Your task to perform on an android device: Go to Reddit.com Image 0: 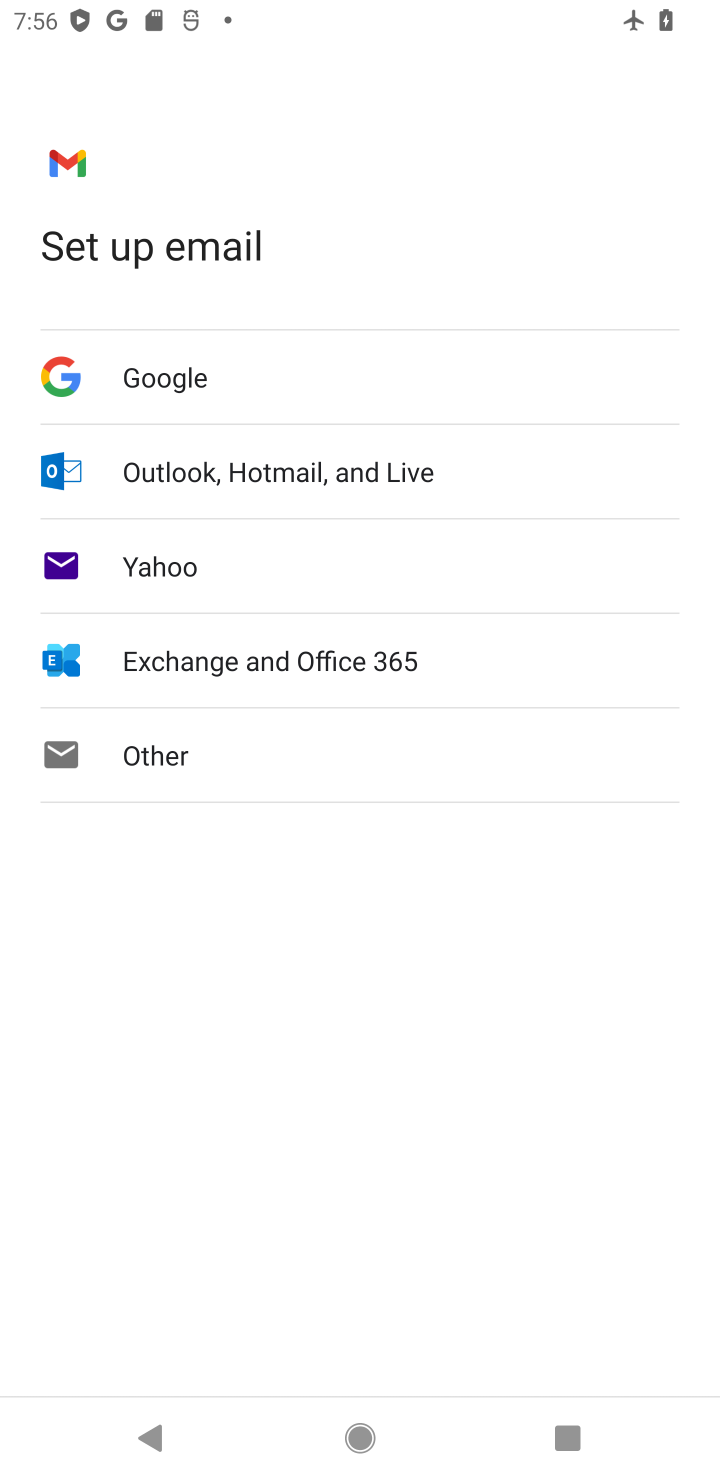
Step 0: press home button
Your task to perform on an android device: Go to Reddit.com Image 1: 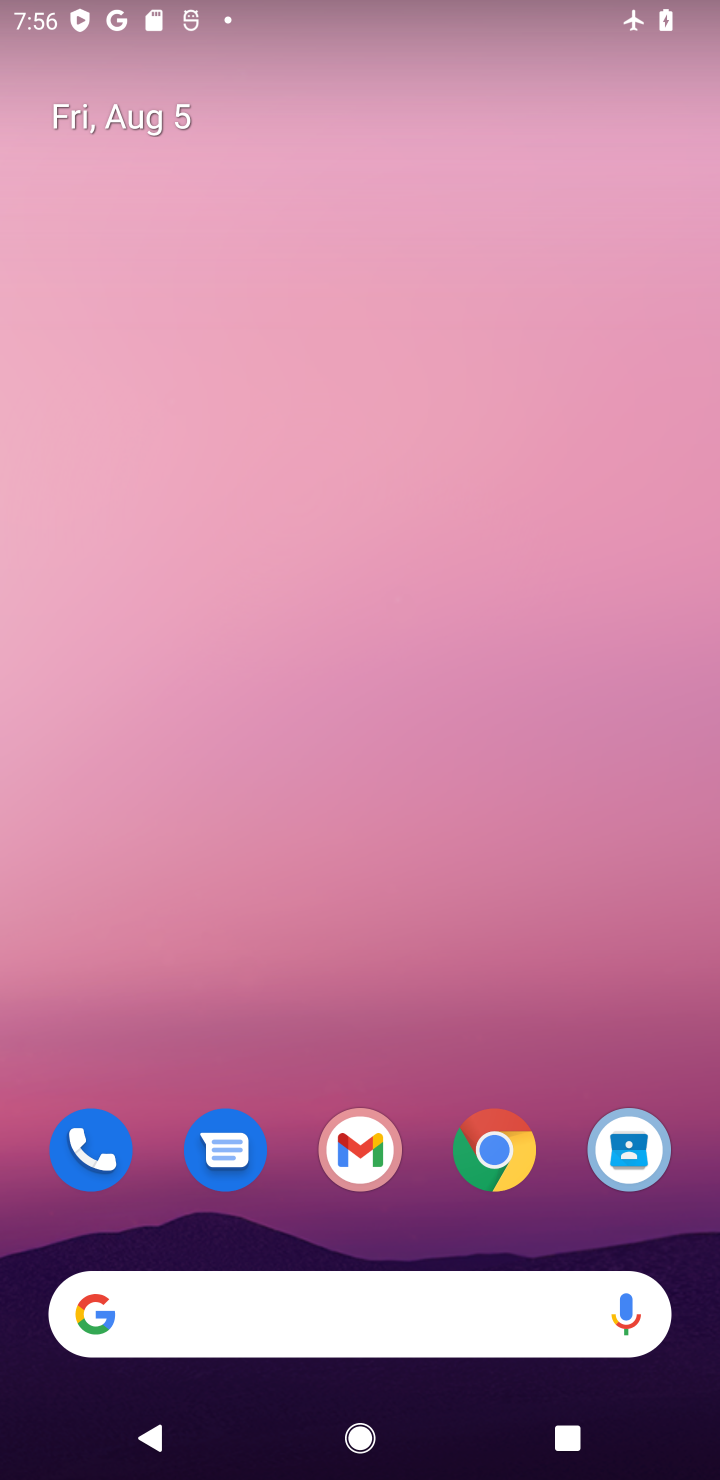
Step 1: drag from (450, 878) to (514, 554)
Your task to perform on an android device: Go to Reddit.com Image 2: 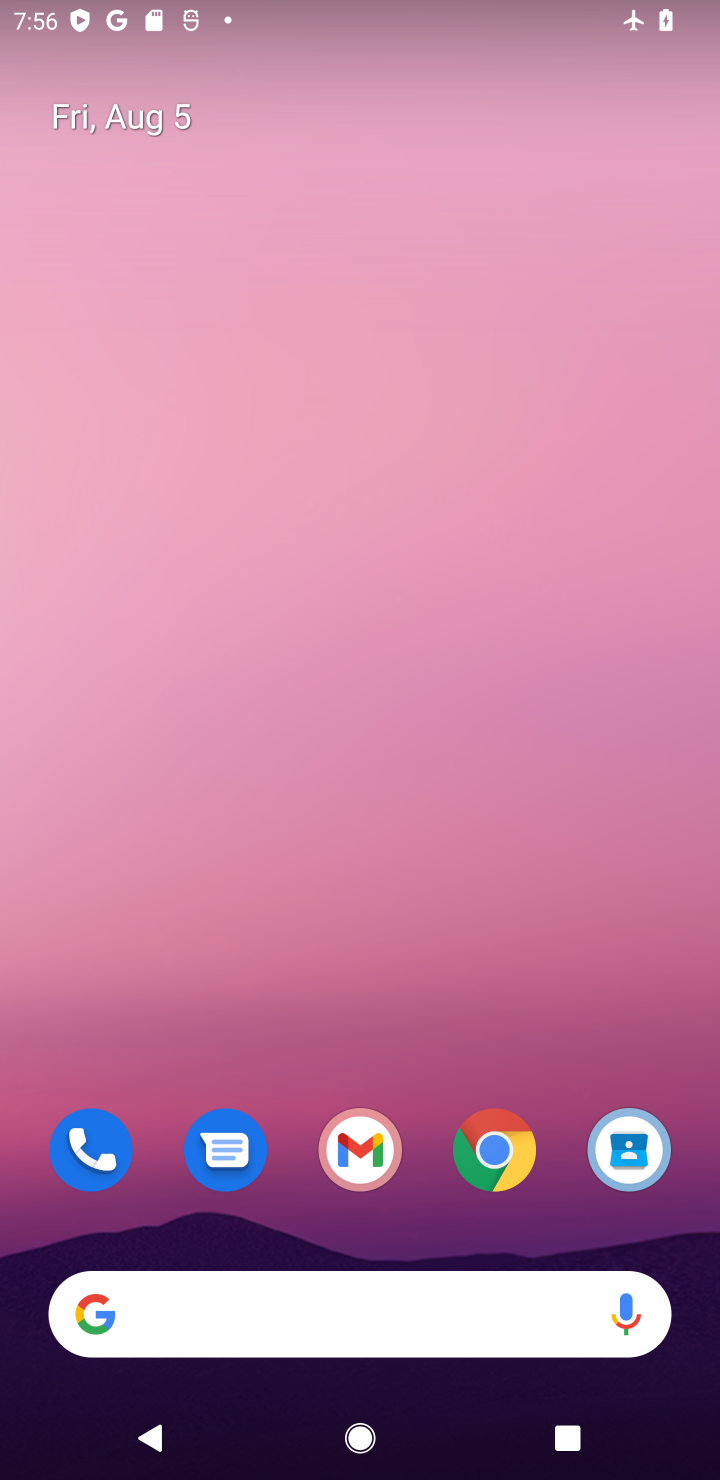
Step 2: drag from (514, 962) to (517, 306)
Your task to perform on an android device: Go to Reddit.com Image 3: 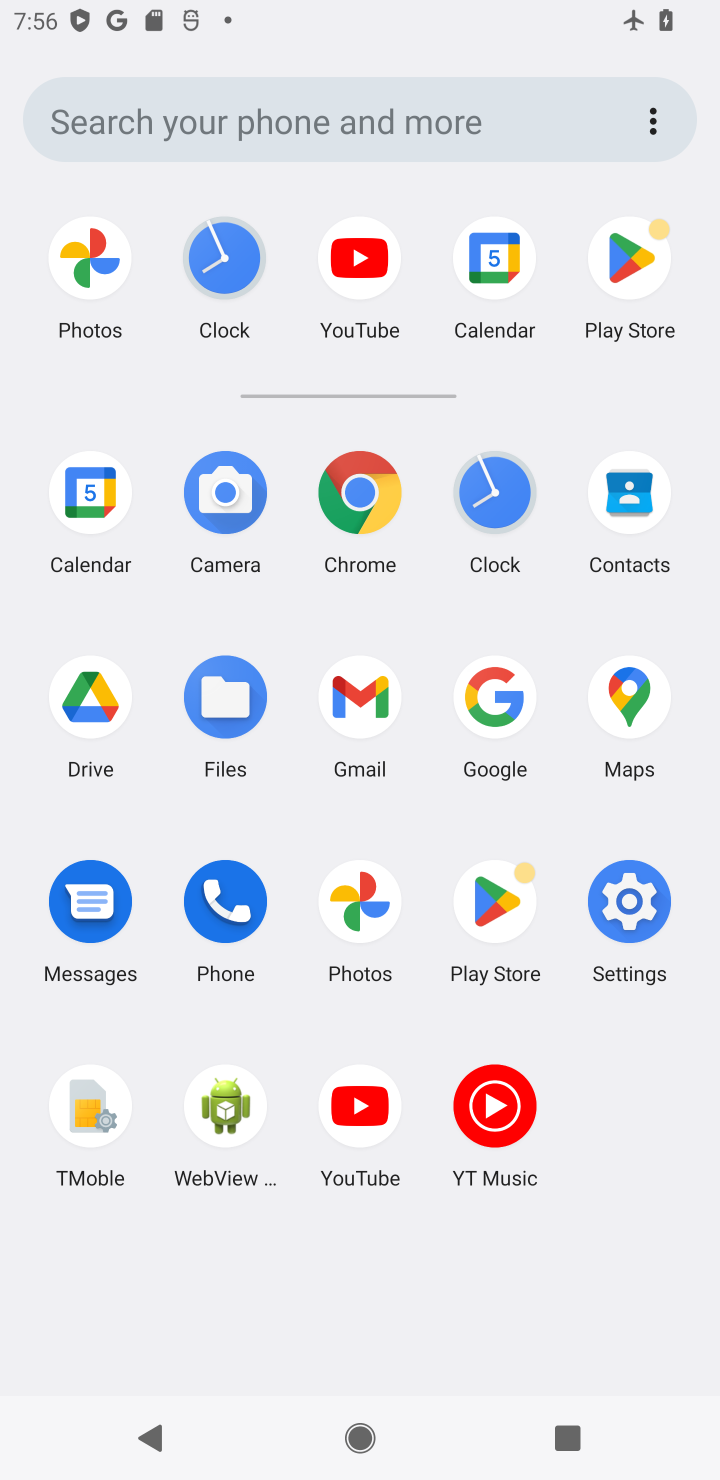
Step 3: click (366, 453)
Your task to perform on an android device: Go to Reddit.com Image 4: 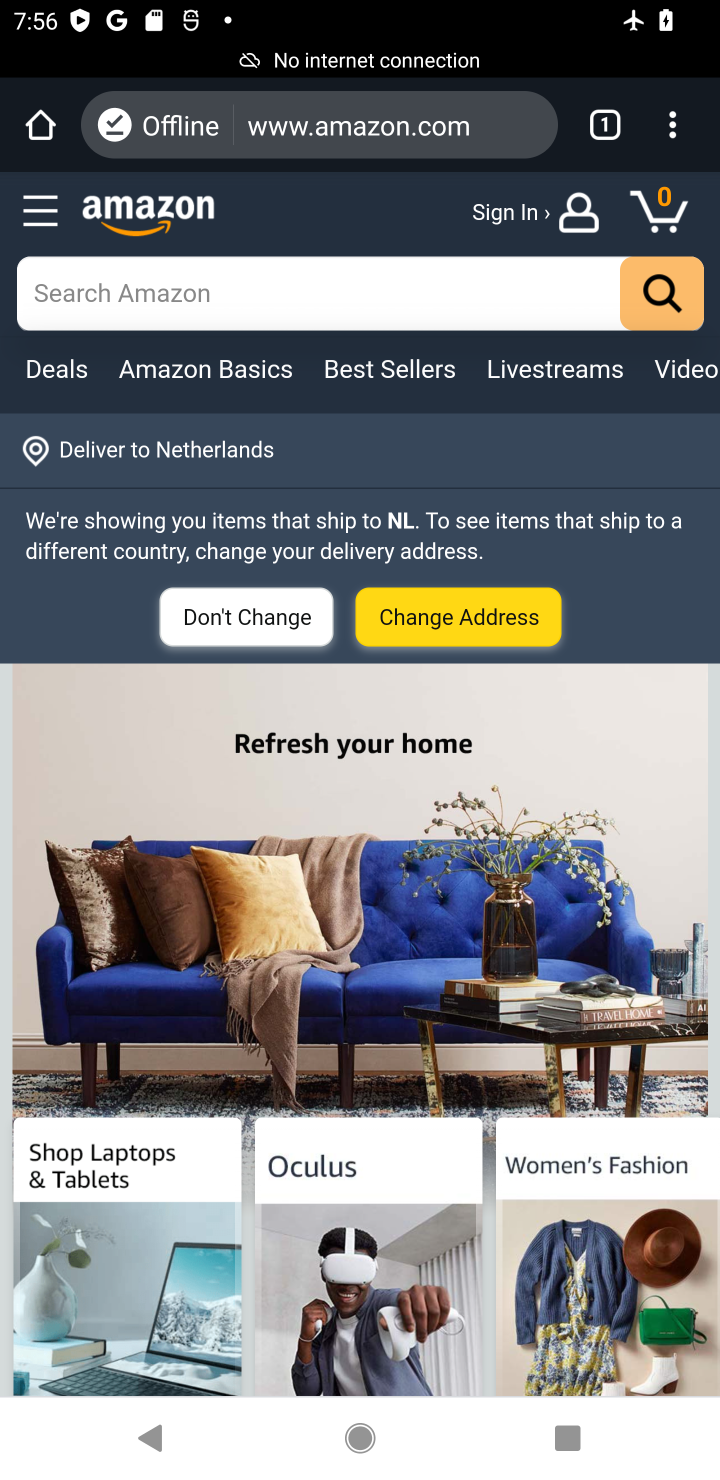
Step 4: click (384, 110)
Your task to perform on an android device: Go to Reddit.com Image 5: 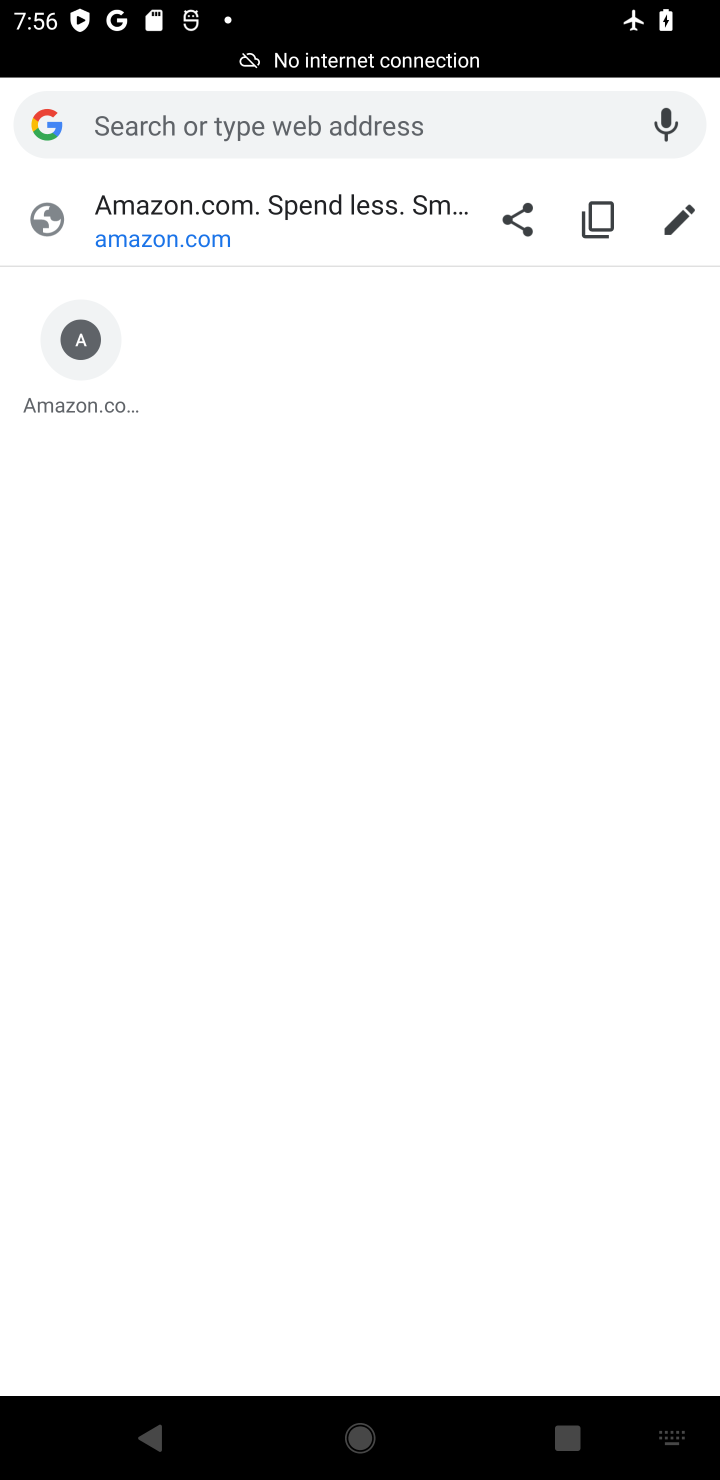
Step 5: type "reddit.com"
Your task to perform on an android device: Go to Reddit.com Image 6: 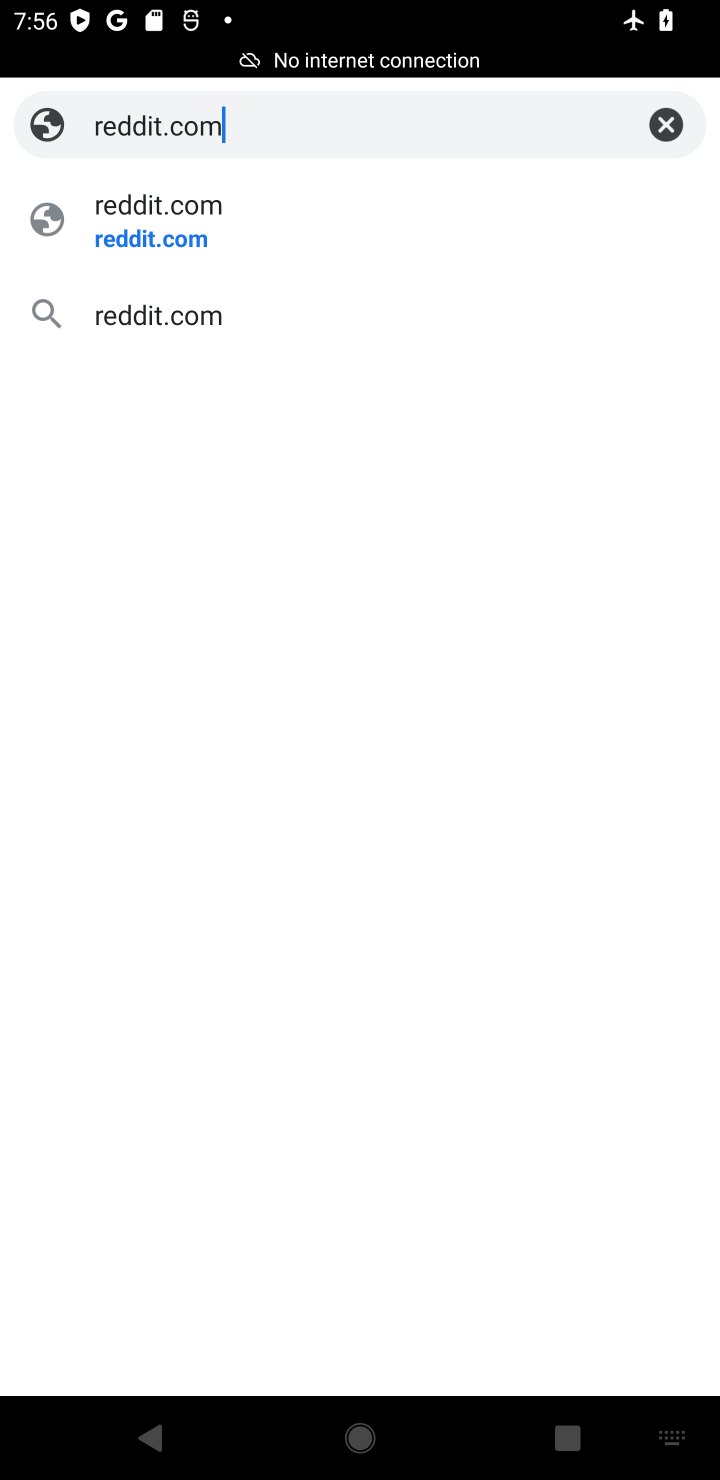
Step 6: click (220, 222)
Your task to perform on an android device: Go to Reddit.com Image 7: 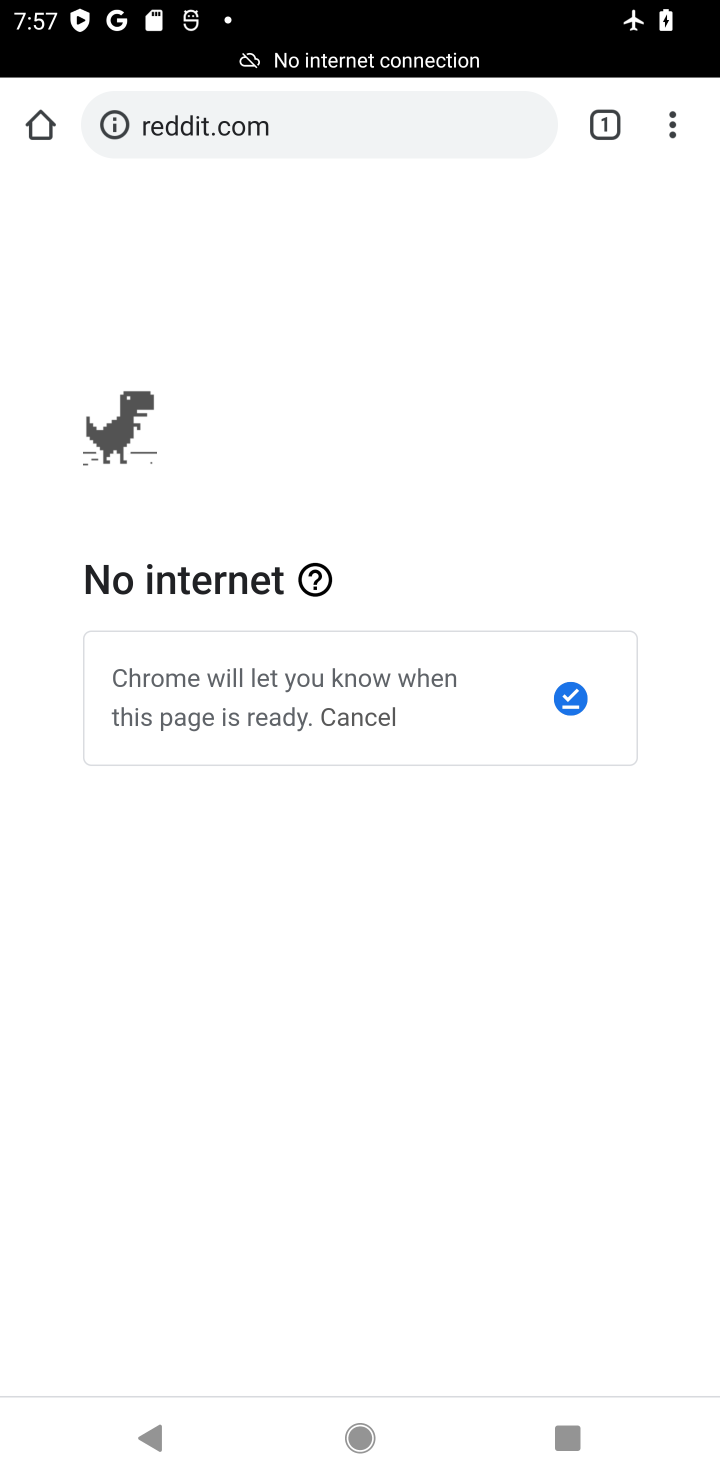
Step 7: task complete